Your task to perform on an android device: Open battery settings Image 0: 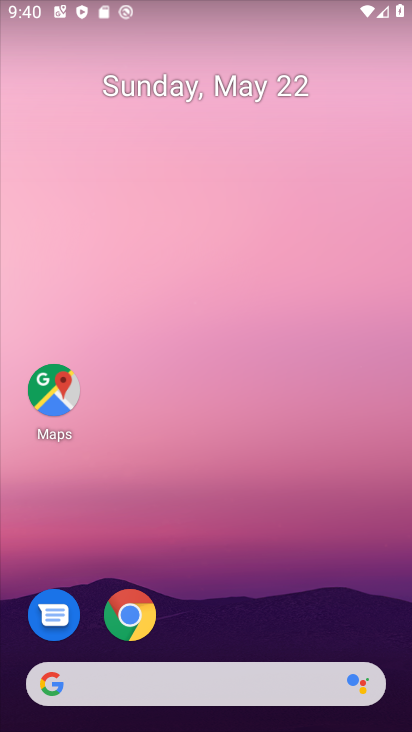
Step 0: drag from (278, 223) to (279, 118)
Your task to perform on an android device: Open battery settings Image 1: 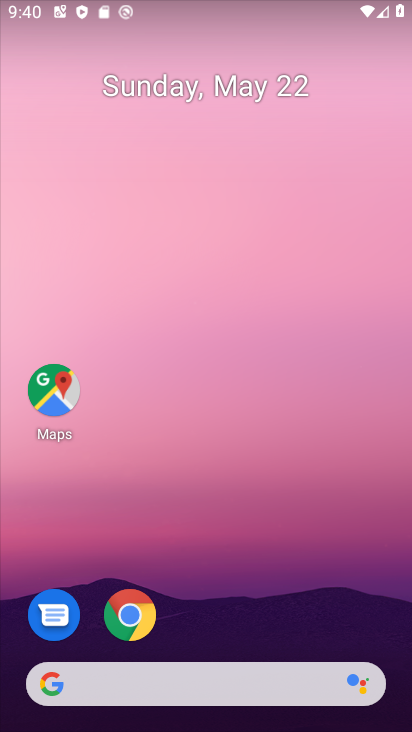
Step 1: drag from (219, 601) to (176, 129)
Your task to perform on an android device: Open battery settings Image 2: 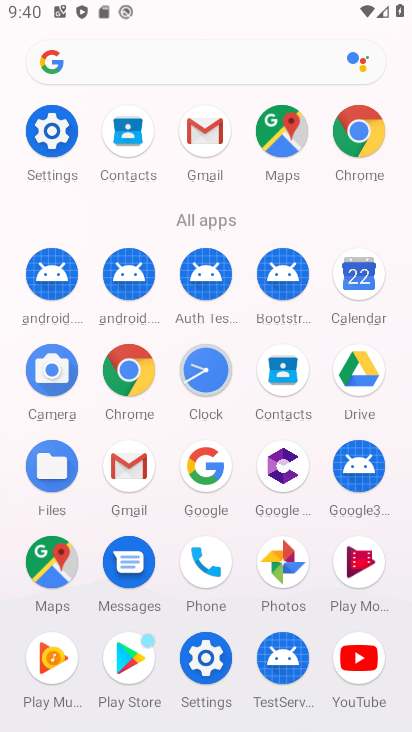
Step 2: click (53, 140)
Your task to perform on an android device: Open battery settings Image 3: 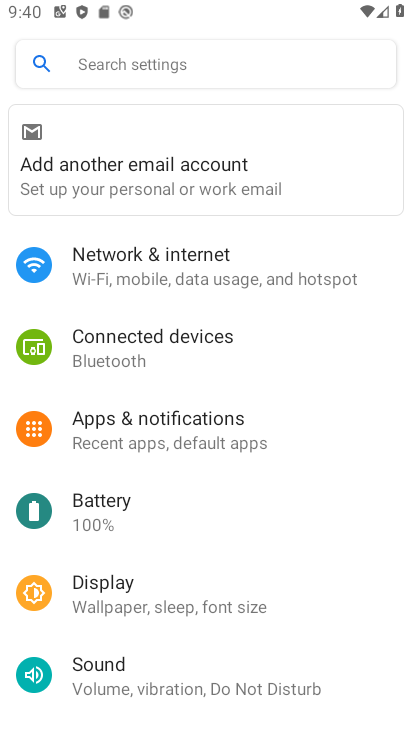
Step 3: drag from (250, 622) to (276, 258)
Your task to perform on an android device: Open battery settings Image 4: 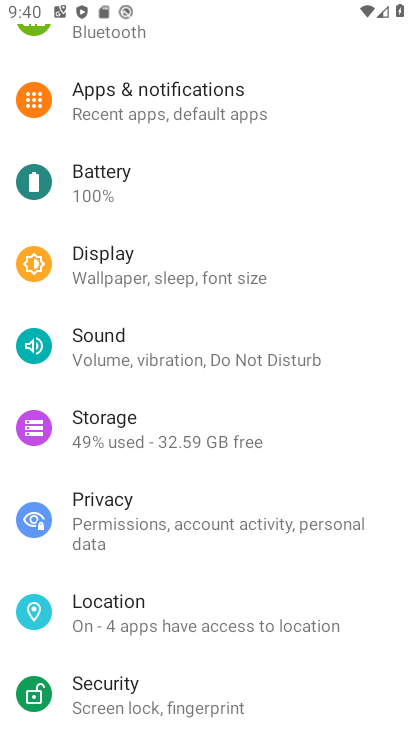
Step 4: click (99, 182)
Your task to perform on an android device: Open battery settings Image 5: 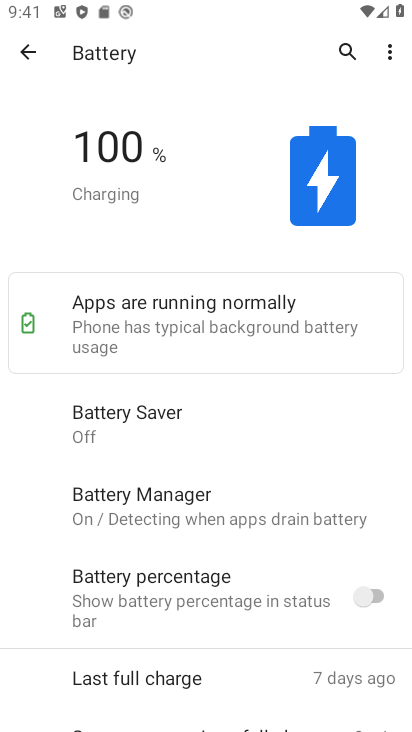
Step 5: task complete